Your task to perform on an android device: toggle improve location accuracy Image 0: 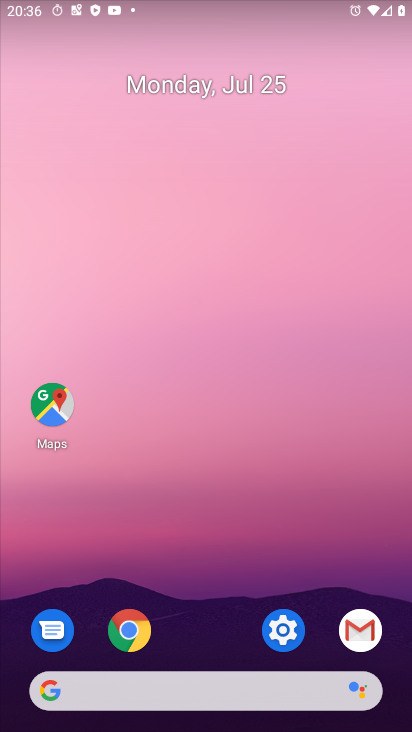
Step 0: press home button
Your task to perform on an android device: toggle improve location accuracy Image 1: 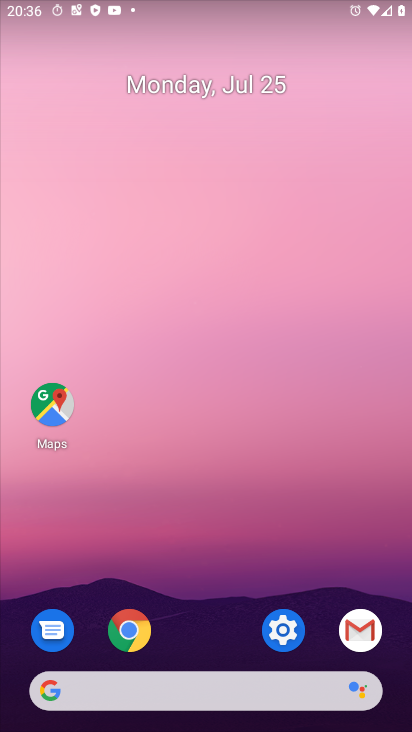
Step 1: click (285, 641)
Your task to perform on an android device: toggle improve location accuracy Image 2: 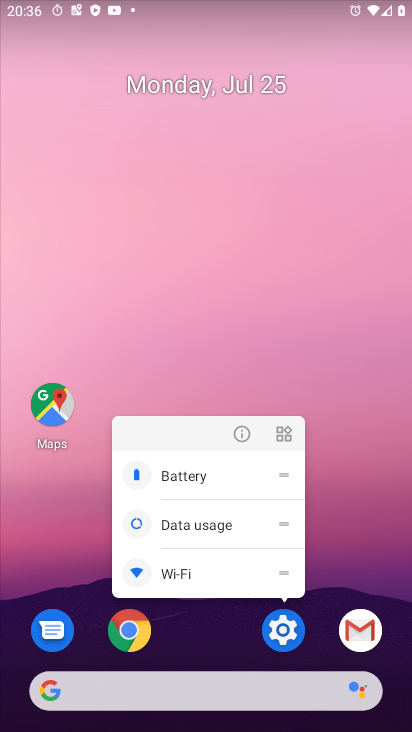
Step 2: click (276, 622)
Your task to perform on an android device: toggle improve location accuracy Image 3: 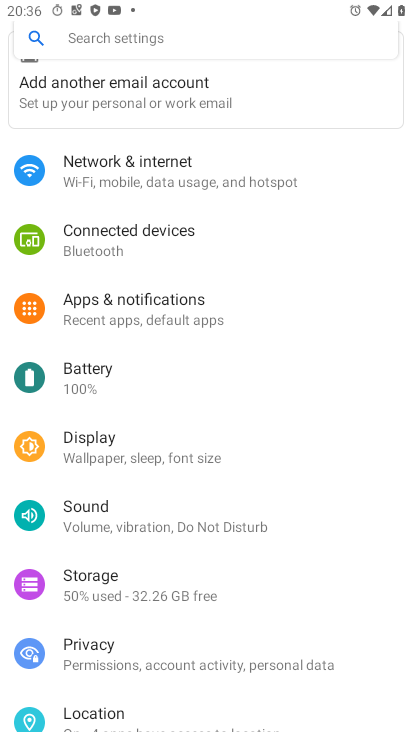
Step 3: click (116, 47)
Your task to perform on an android device: toggle improve location accuracy Image 4: 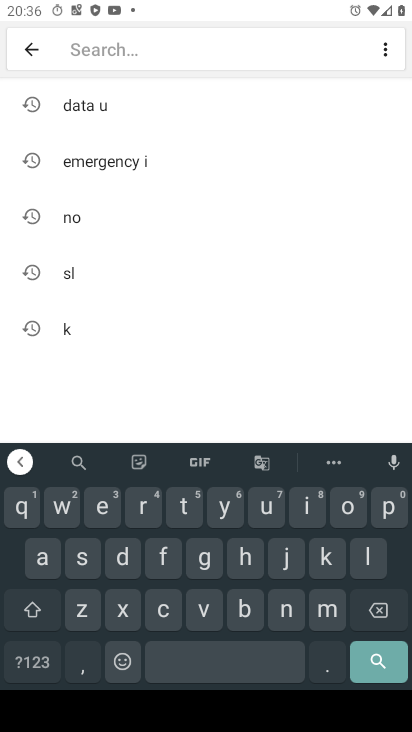
Step 4: click (376, 560)
Your task to perform on an android device: toggle improve location accuracy Image 5: 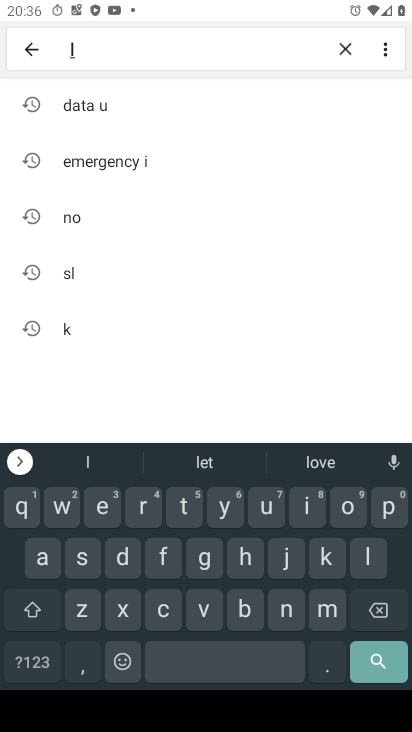
Step 5: click (349, 504)
Your task to perform on an android device: toggle improve location accuracy Image 6: 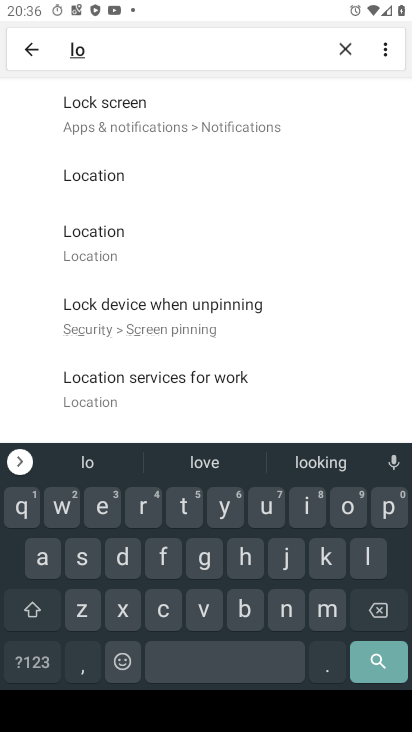
Step 6: click (122, 252)
Your task to perform on an android device: toggle improve location accuracy Image 7: 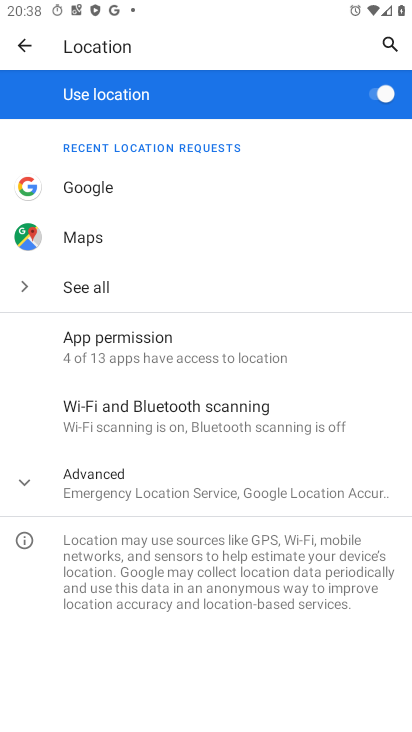
Step 7: click (64, 490)
Your task to perform on an android device: toggle improve location accuracy Image 8: 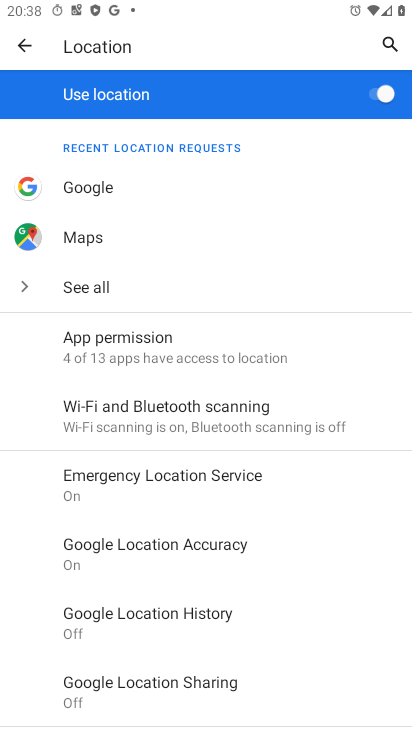
Step 8: click (223, 554)
Your task to perform on an android device: toggle improve location accuracy Image 9: 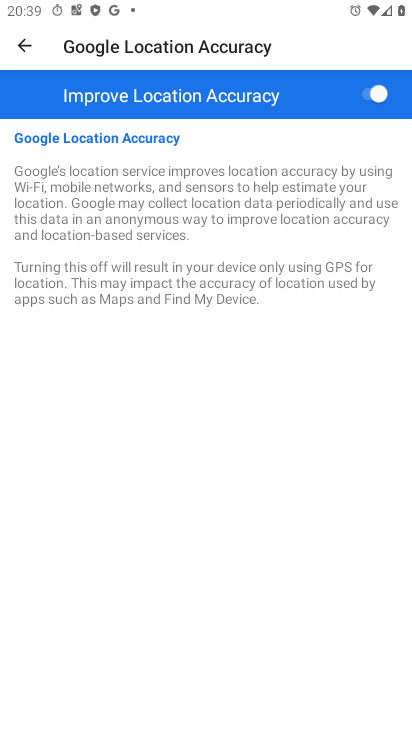
Step 9: task complete